Your task to perform on an android device: turn on javascript in the chrome app Image 0: 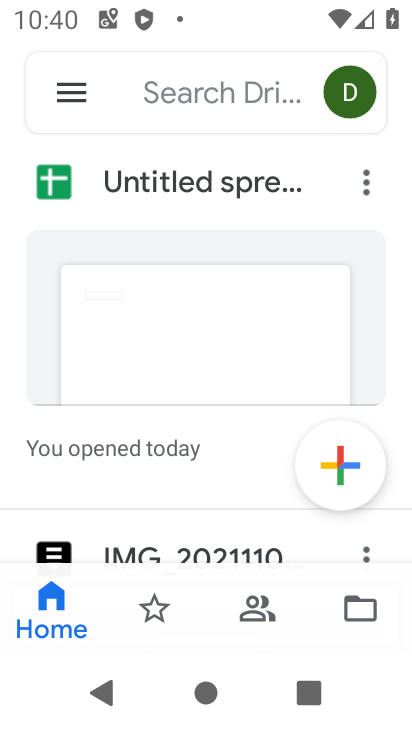
Step 0: press home button
Your task to perform on an android device: turn on javascript in the chrome app Image 1: 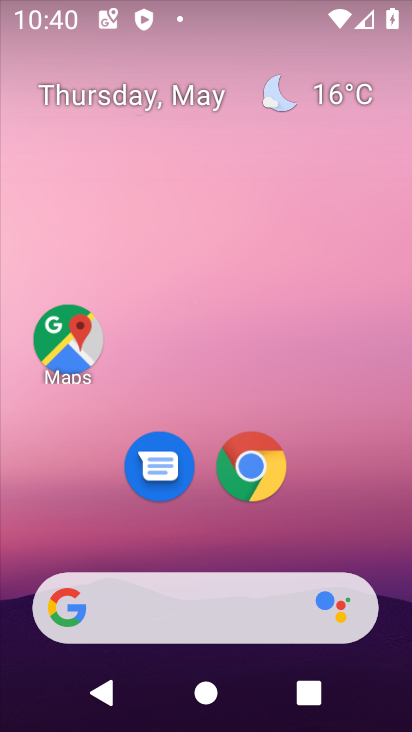
Step 1: click (266, 450)
Your task to perform on an android device: turn on javascript in the chrome app Image 2: 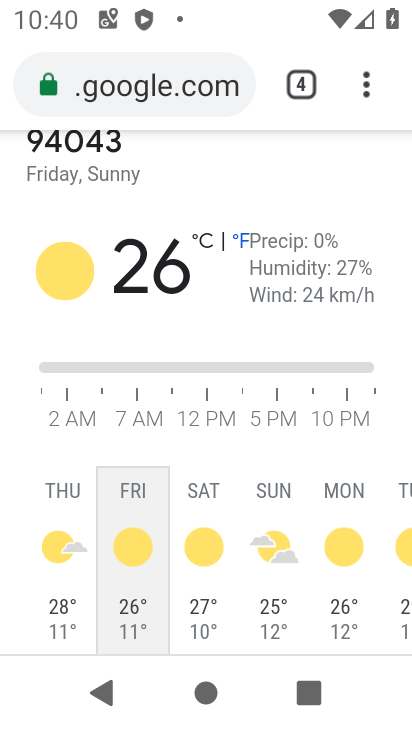
Step 2: click (366, 59)
Your task to perform on an android device: turn on javascript in the chrome app Image 3: 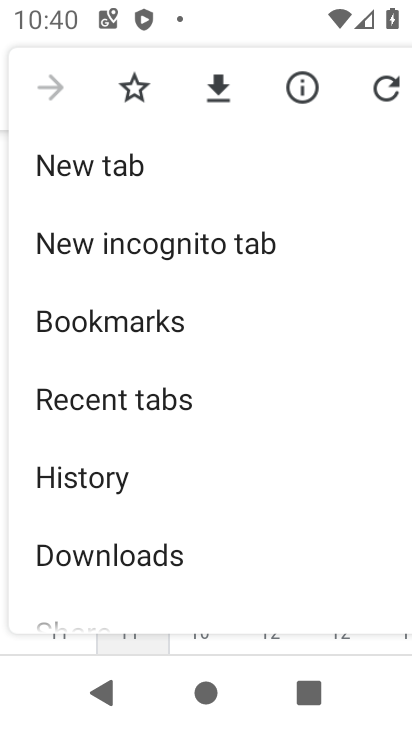
Step 3: drag from (197, 553) to (249, 185)
Your task to perform on an android device: turn on javascript in the chrome app Image 4: 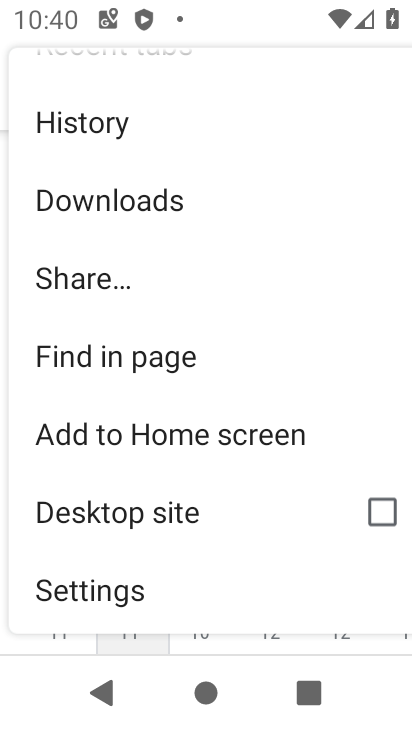
Step 4: drag from (153, 546) to (207, 315)
Your task to perform on an android device: turn on javascript in the chrome app Image 5: 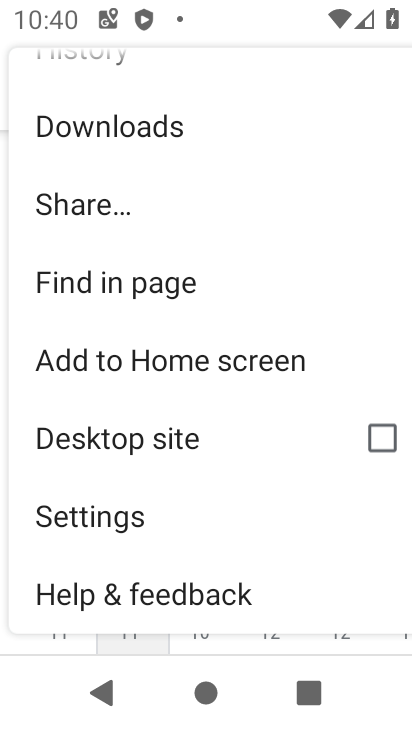
Step 5: click (142, 519)
Your task to perform on an android device: turn on javascript in the chrome app Image 6: 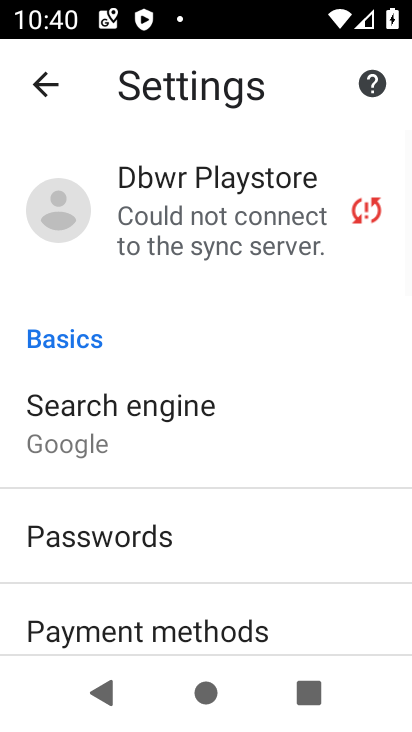
Step 6: drag from (260, 510) to (325, 178)
Your task to perform on an android device: turn on javascript in the chrome app Image 7: 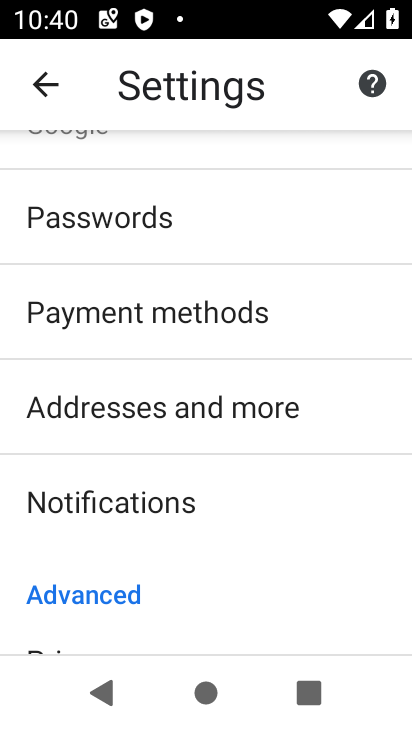
Step 7: drag from (206, 503) to (295, 143)
Your task to perform on an android device: turn on javascript in the chrome app Image 8: 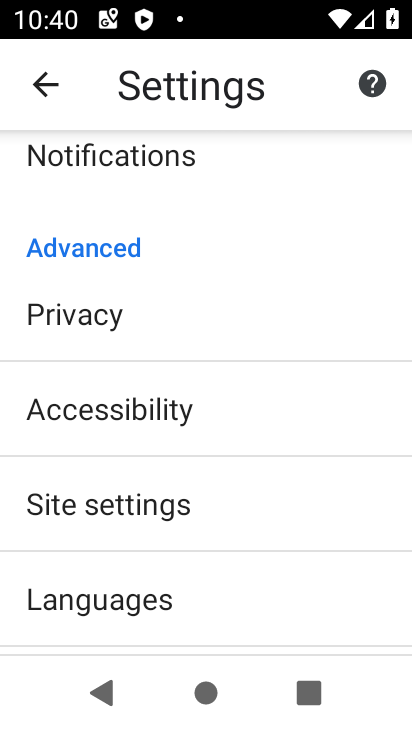
Step 8: click (197, 495)
Your task to perform on an android device: turn on javascript in the chrome app Image 9: 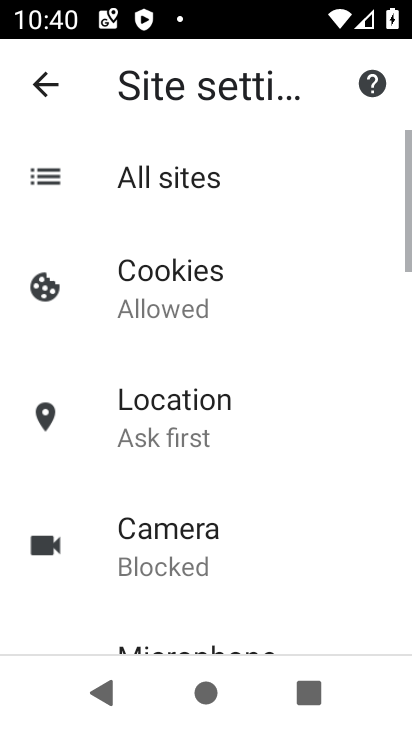
Step 9: click (303, 221)
Your task to perform on an android device: turn on javascript in the chrome app Image 10: 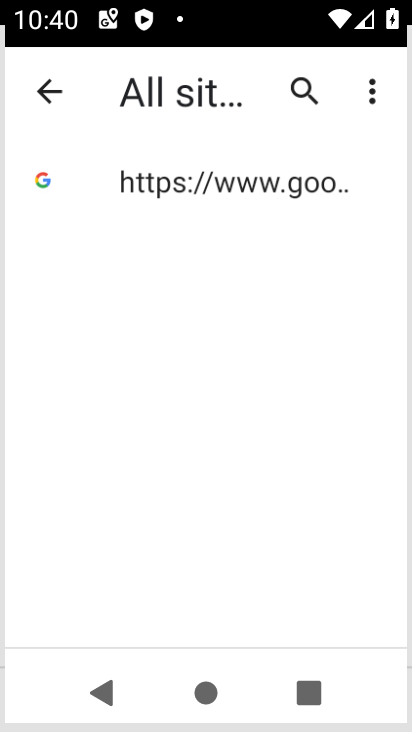
Step 10: drag from (224, 501) to (245, 259)
Your task to perform on an android device: turn on javascript in the chrome app Image 11: 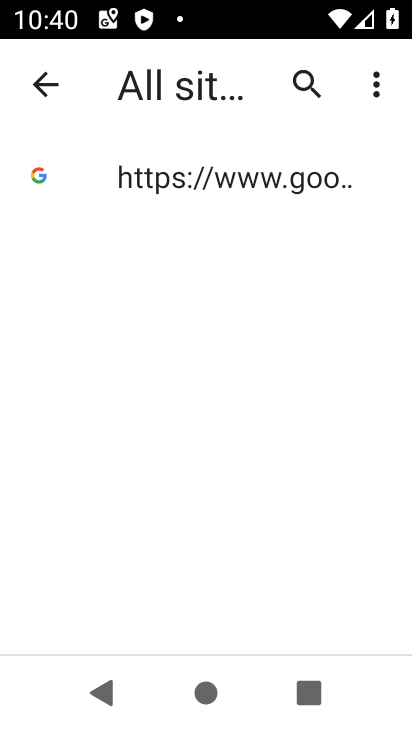
Step 11: click (40, 80)
Your task to perform on an android device: turn on javascript in the chrome app Image 12: 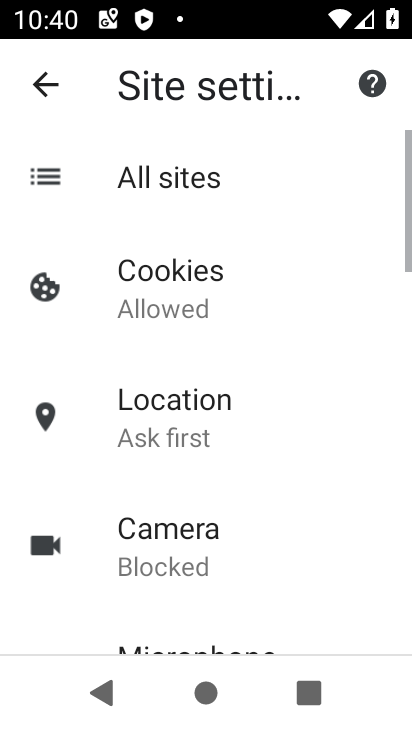
Step 12: drag from (275, 504) to (273, 291)
Your task to perform on an android device: turn on javascript in the chrome app Image 13: 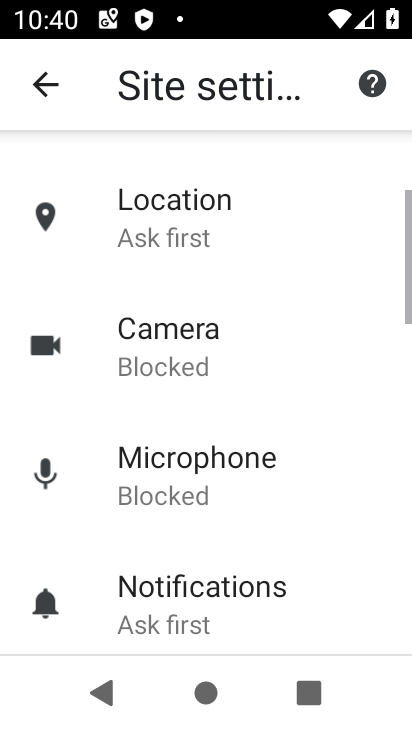
Step 13: drag from (251, 498) to (256, 328)
Your task to perform on an android device: turn on javascript in the chrome app Image 14: 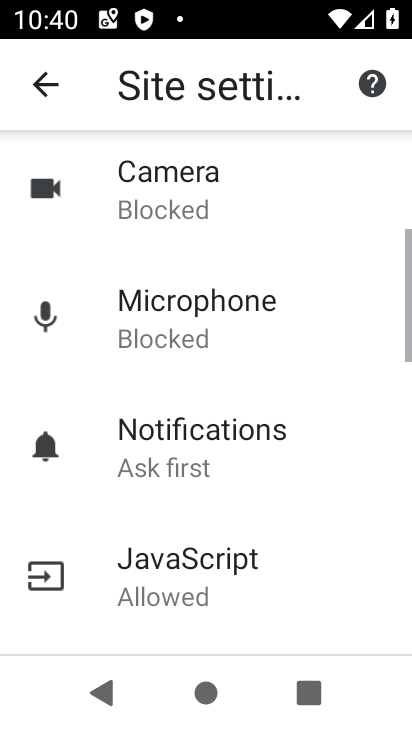
Step 14: drag from (282, 427) to (283, 311)
Your task to perform on an android device: turn on javascript in the chrome app Image 15: 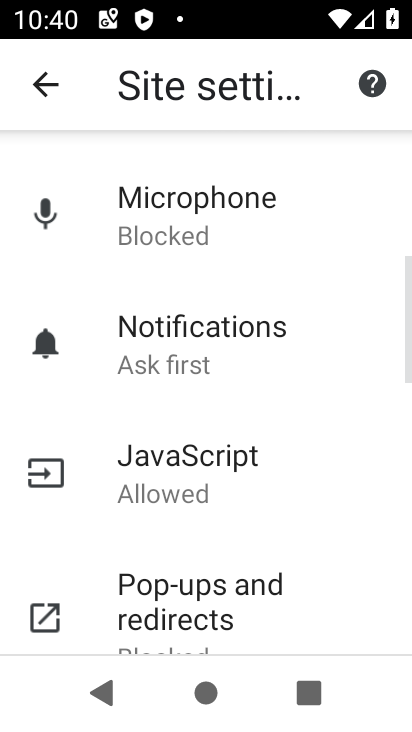
Step 15: drag from (251, 571) to (279, 401)
Your task to perform on an android device: turn on javascript in the chrome app Image 16: 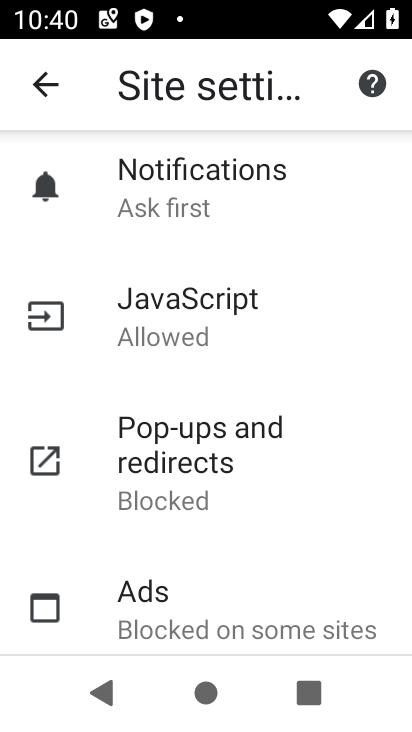
Step 16: click (221, 317)
Your task to perform on an android device: turn on javascript in the chrome app Image 17: 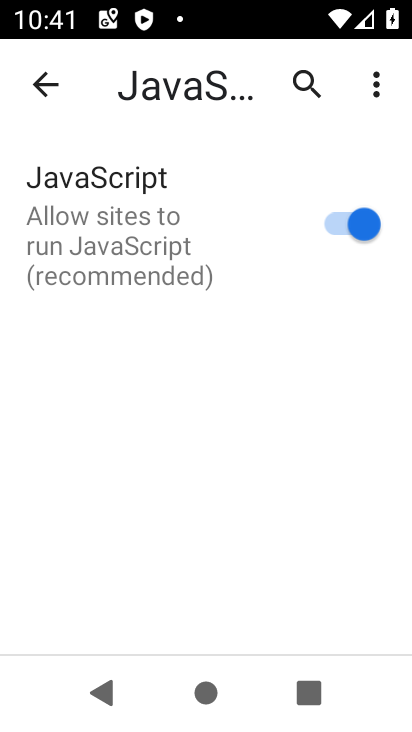
Step 17: task complete